Your task to perform on an android device: open a bookmark in the chrome app Image 0: 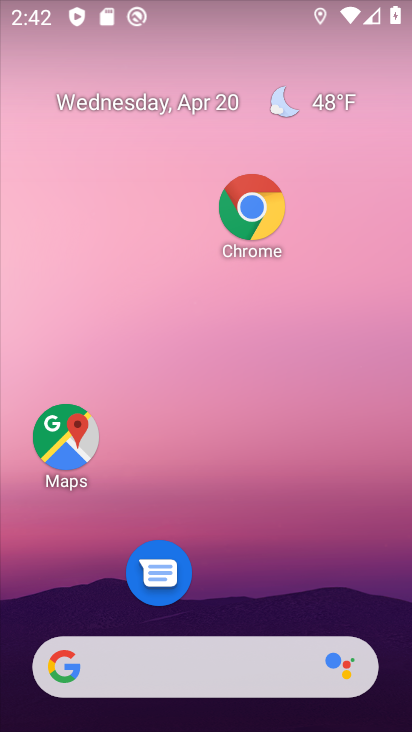
Step 0: drag from (251, 597) to (270, 223)
Your task to perform on an android device: open a bookmark in the chrome app Image 1: 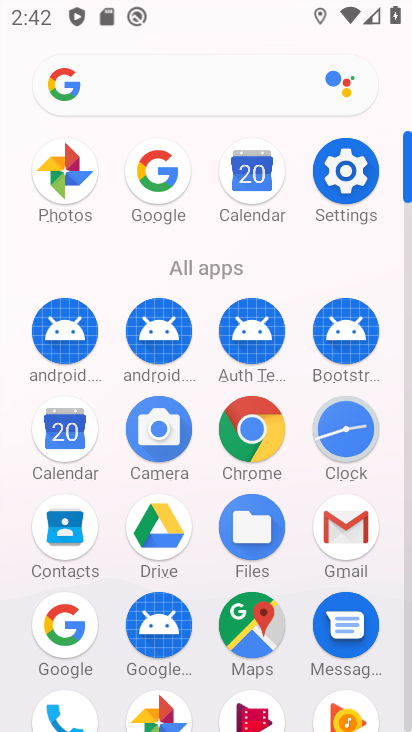
Step 1: click (261, 448)
Your task to perform on an android device: open a bookmark in the chrome app Image 2: 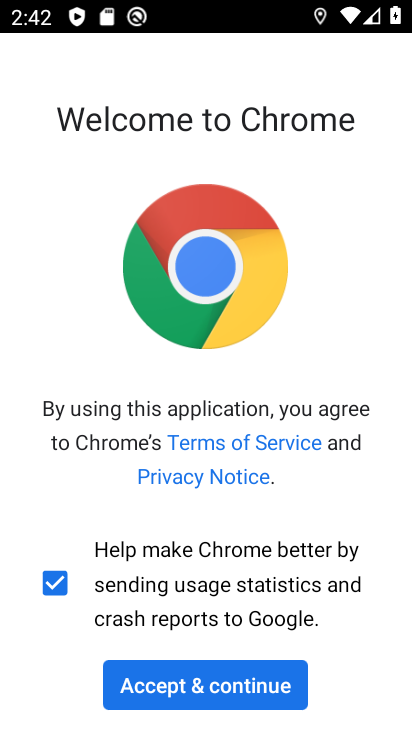
Step 2: click (228, 705)
Your task to perform on an android device: open a bookmark in the chrome app Image 3: 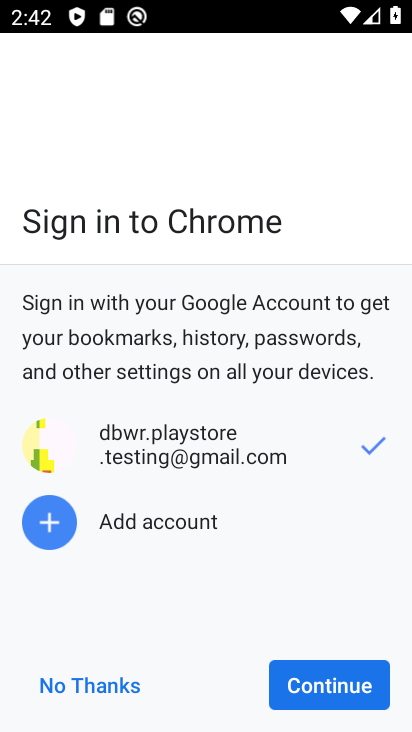
Step 3: click (332, 691)
Your task to perform on an android device: open a bookmark in the chrome app Image 4: 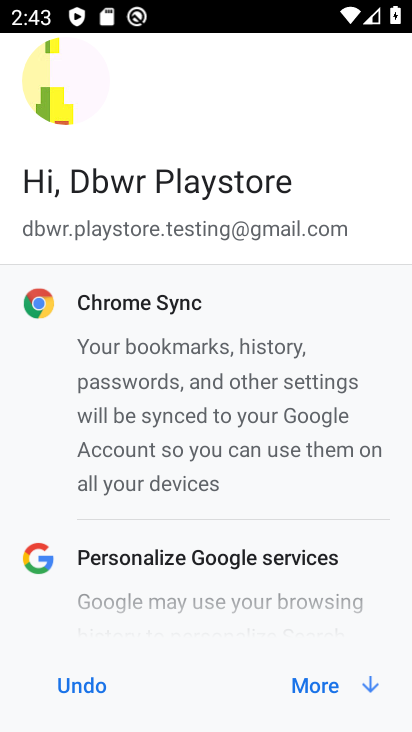
Step 4: click (359, 679)
Your task to perform on an android device: open a bookmark in the chrome app Image 5: 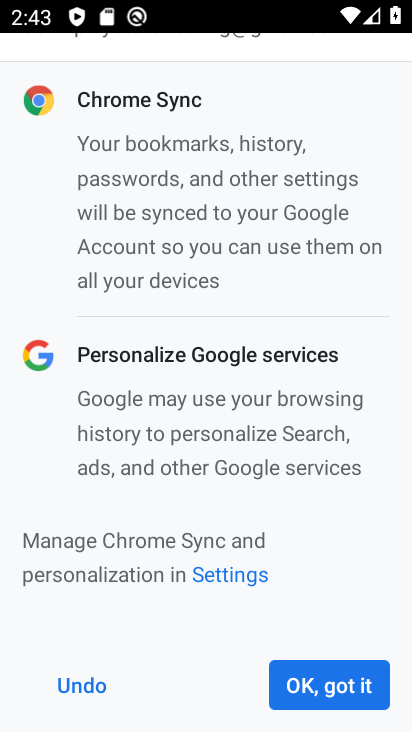
Step 5: click (362, 675)
Your task to perform on an android device: open a bookmark in the chrome app Image 6: 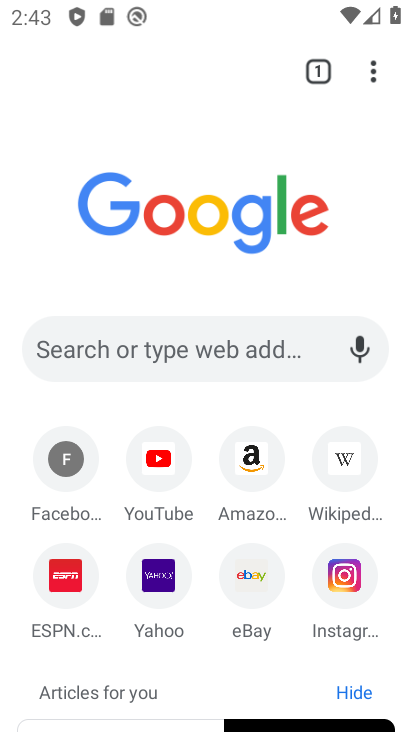
Step 6: click (373, 71)
Your task to perform on an android device: open a bookmark in the chrome app Image 7: 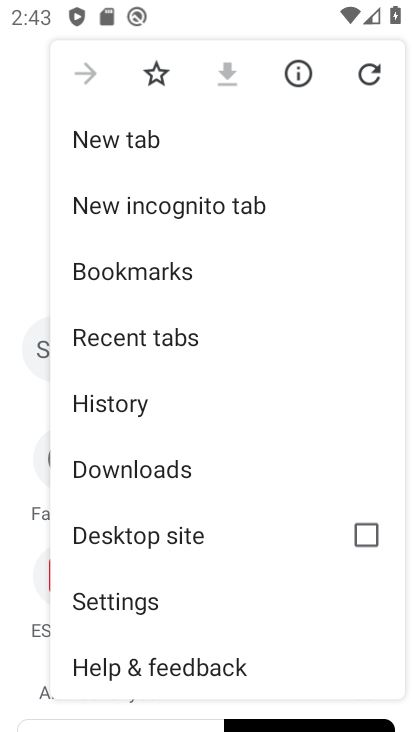
Step 7: click (194, 269)
Your task to perform on an android device: open a bookmark in the chrome app Image 8: 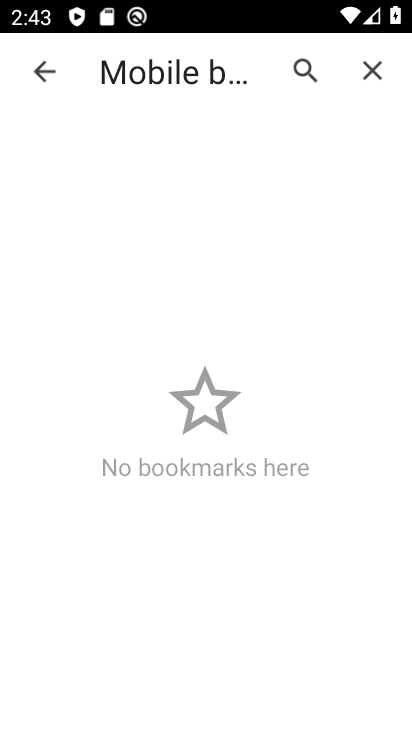
Step 8: task complete